Your task to perform on an android device: delete a single message in the gmail app Image 0: 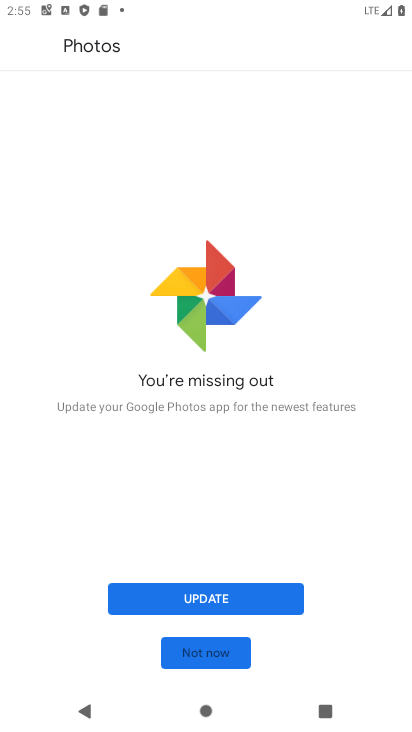
Step 0: press home button
Your task to perform on an android device: delete a single message in the gmail app Image 1: 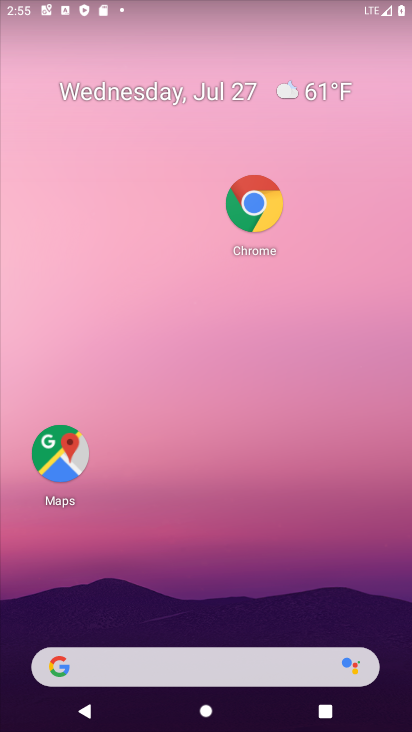
Step 1: drag from (221, 579) to (261, 215)
Your task to perform on an android device: delete a single message in the gmail app Image 2: 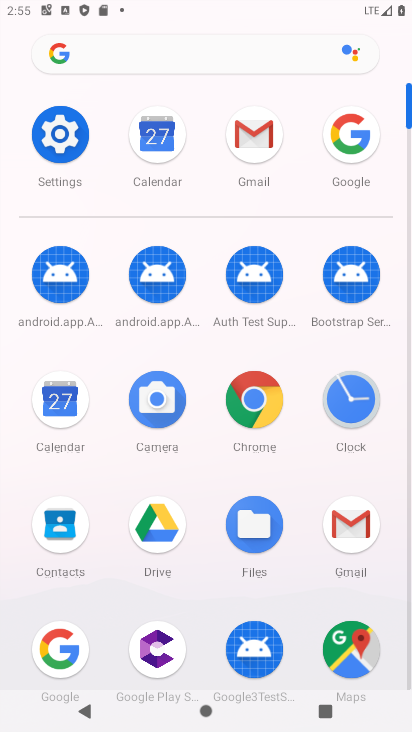
Step 2: click (277, 157)
Your task to perform on an android device: delete a single message in the gmail app Image 3: 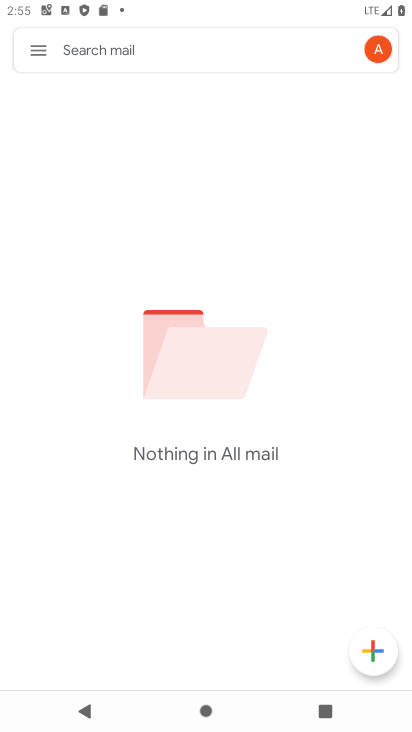
Step 3: click (31, 48)
Your task to perform on an android device: delete a single message in the gmail app Image 4: 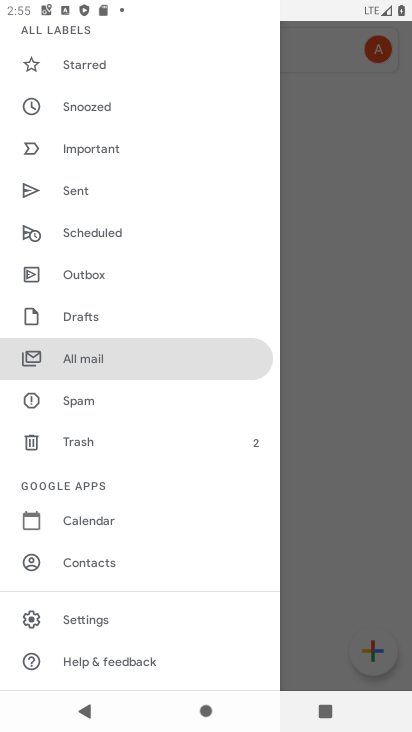
Step 4: click (98, 364)
Your task to perform on an android device: delete a single message in the gmail app Image 5: 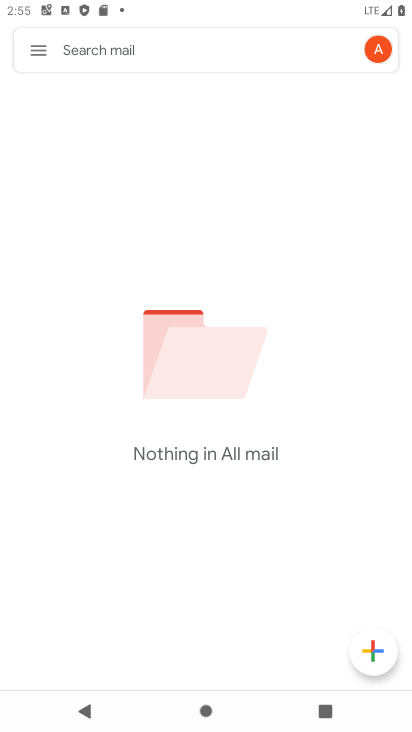
Step 5: task complete